Your task to perform on an android device: set the timer Image 0: 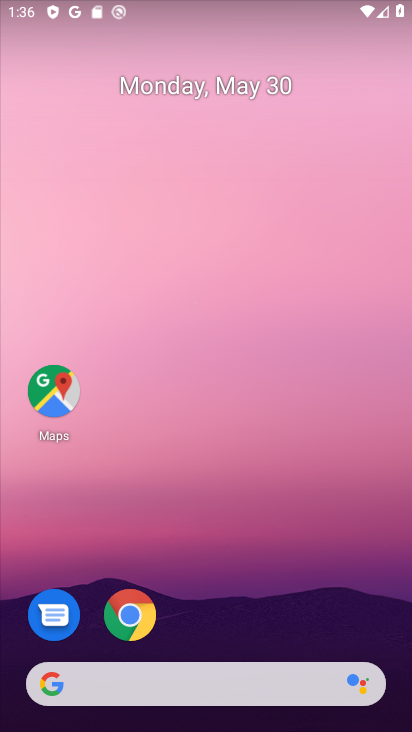
Step 0: drag from (284, 575) to (301, 8)
Your task to perform on an android device: set the timer Image 1: 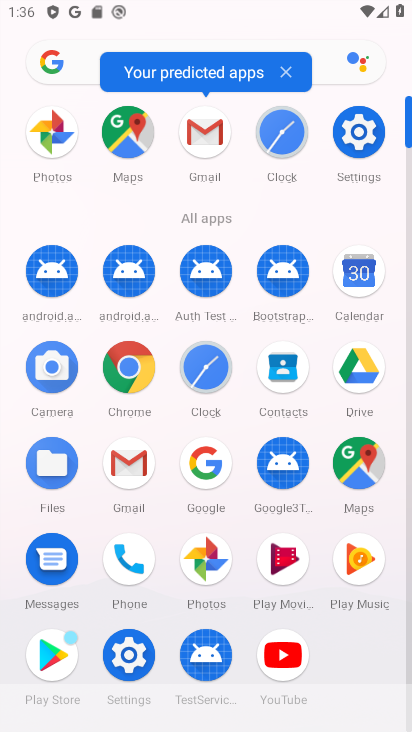
Step 1: click (198, 366)
Your task to perform on an android device: set the timer Image 2: 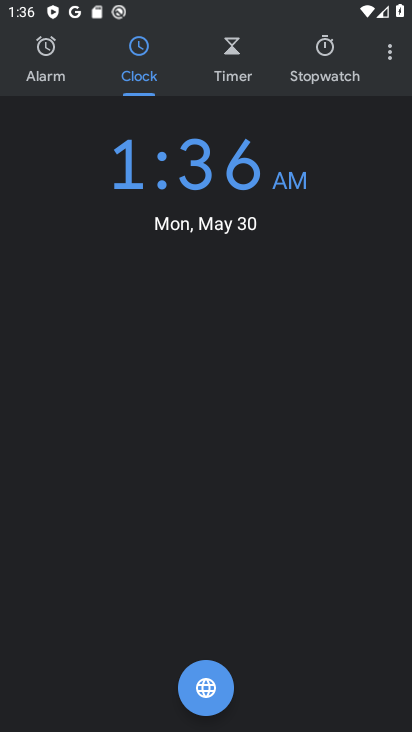
Step 2: click (237, 64)
Your task to perform on an android device: set the timer Image 3: 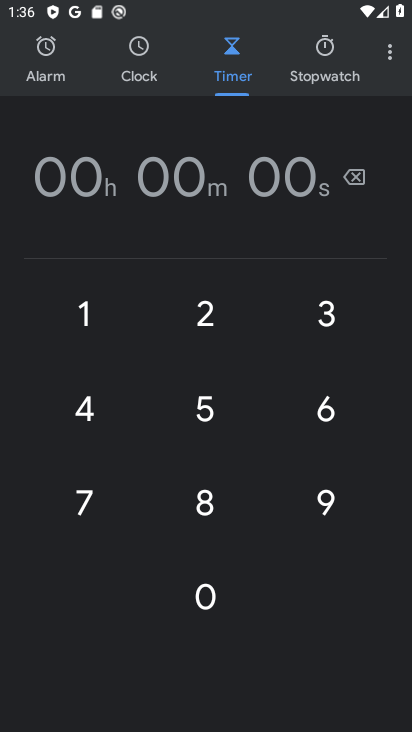
Step 3: click (207, 316)
Your task to perform on an android device: set the timer Image 4: 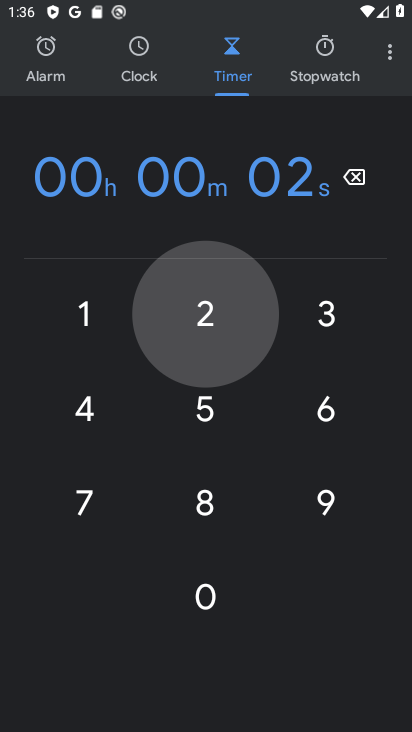
Step 4: click (225, 398)
Your task to perform on an android device: set the timer Image 5: 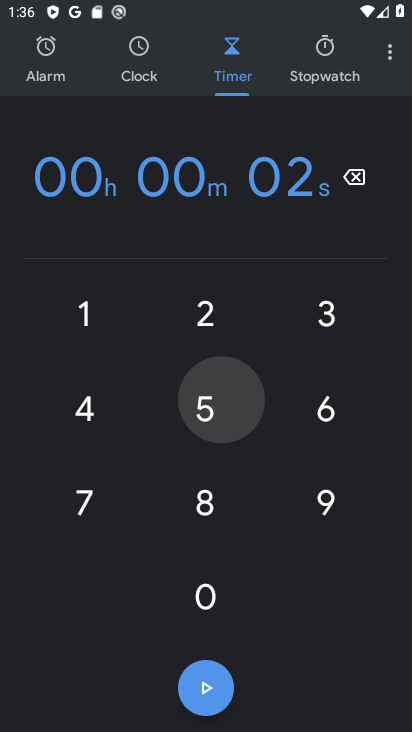
Step 5: click (204, 351)
Your task to perform on an android device: set the timer Image 6: 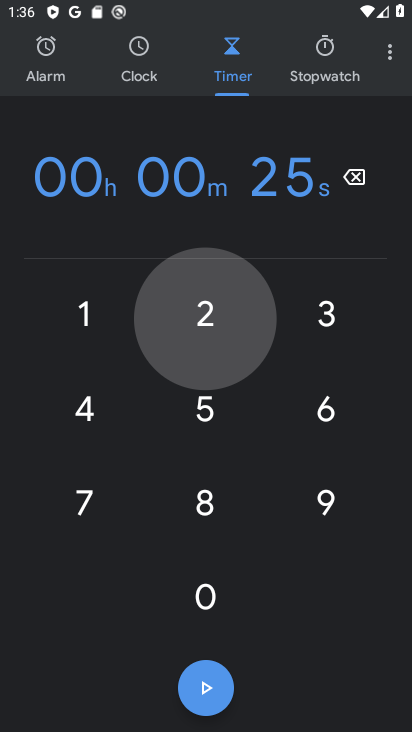
Step 6: click (205, 401)
Your task to perform on an android device: set the timer Image 7: 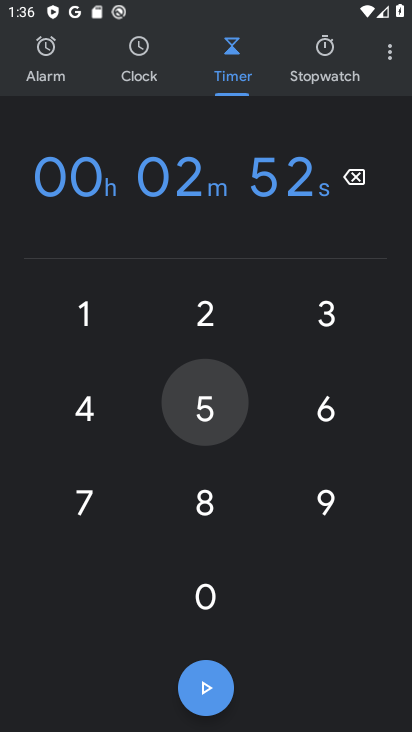
Step 7: click (184, 349)
Your task to perform on an android device: set the timer Image 8: 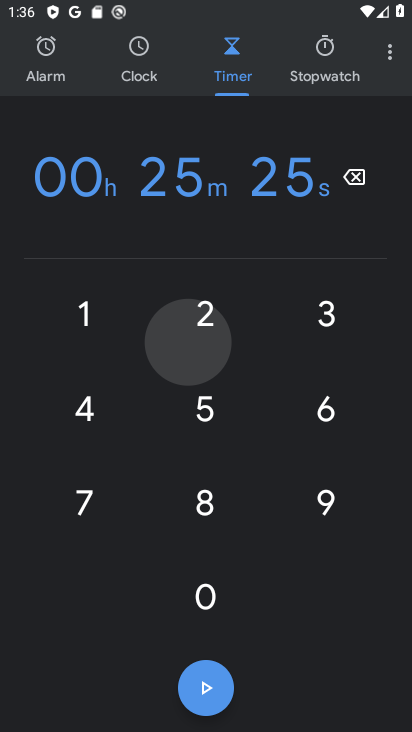
Step 8: click (193, 398)
Your task to perform on an android device: set the timer Image 9: 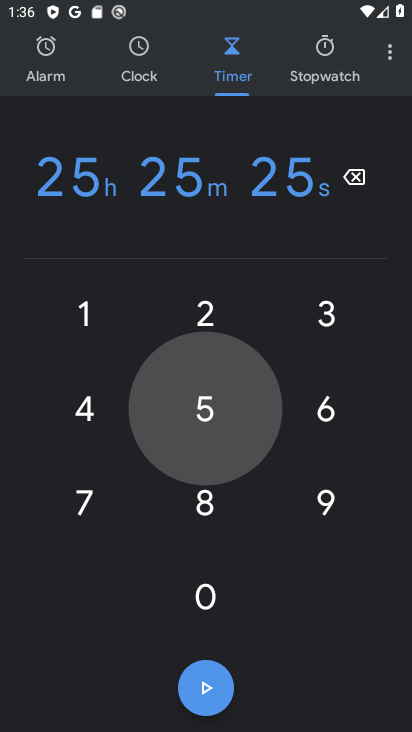
Step 9: click (185, 374)
Your task to perform on an android device: set the timer Image 10: 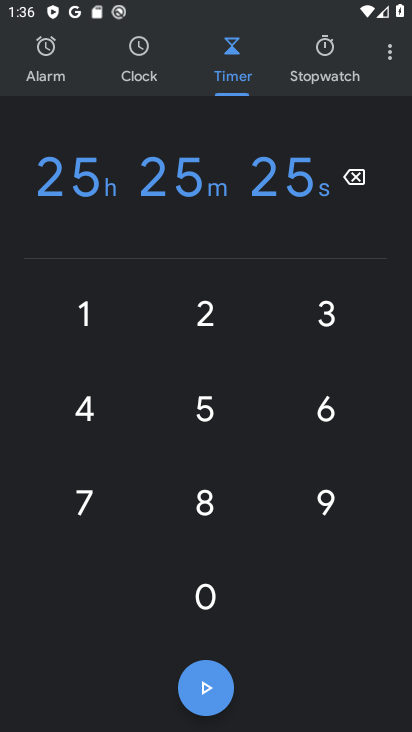
Step 10: click (203, 701)
Your task to perform on an android device: set the timer Image 11: 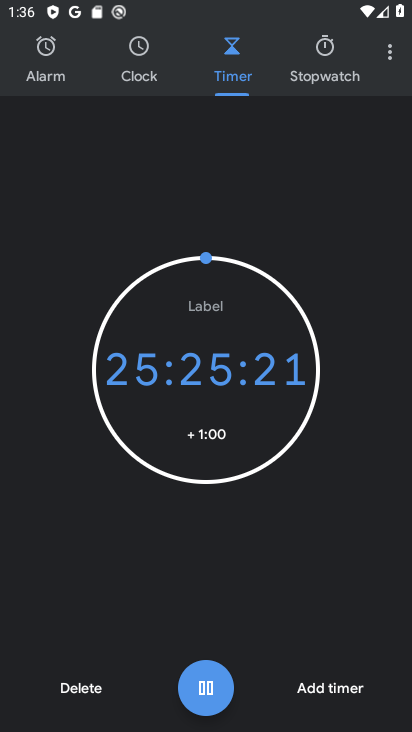
Step 11: task complete